Your task to perform on an android device: turn off sleep mode Image 0: 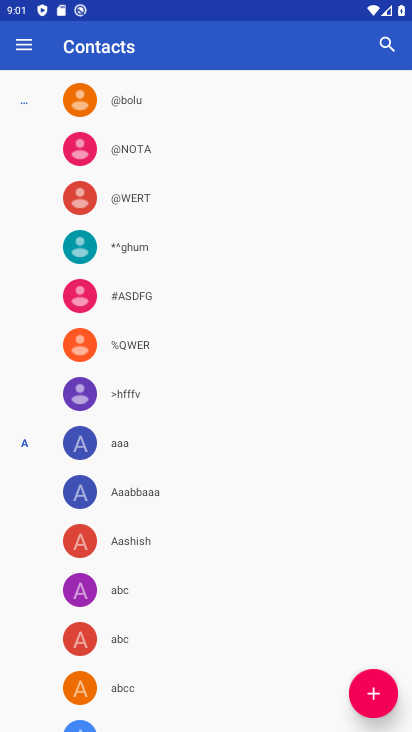
Step 0: press home button
Your task to perform on an android device: turn off sleep mode Image 1: 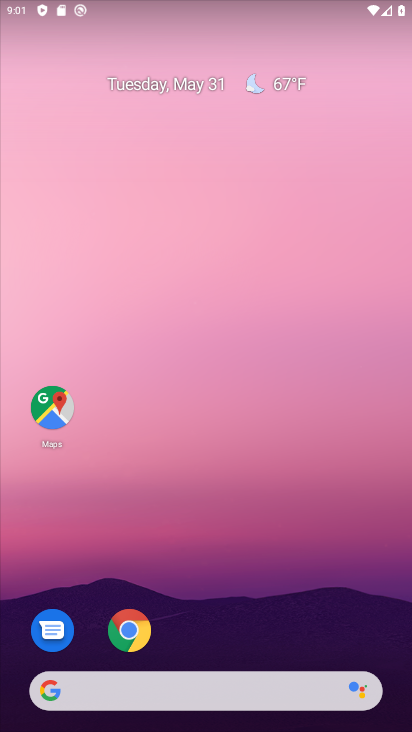
Step 1: drag from (238, 606) to (272, 19)
Your task to perform on an android device: turn off sleep mode Image 2: 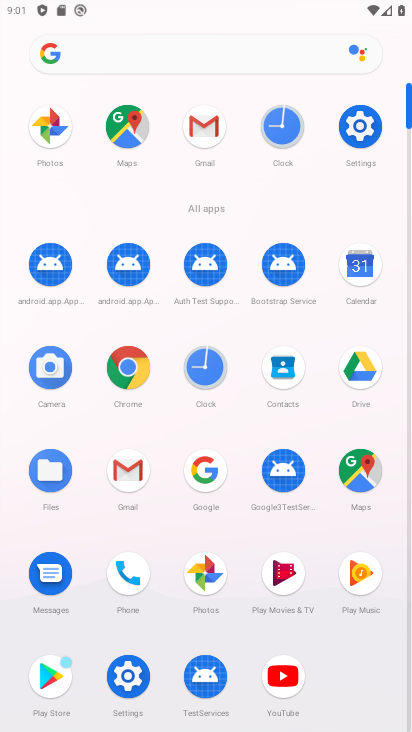
Step 2: click (365, 128)
Your task to perform on an android device: turn off sleep mode Image 3: 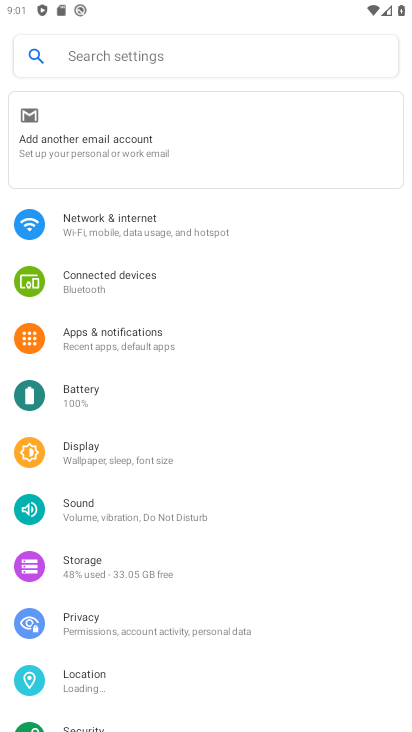
Step 3: drag from (150, 612) to (247, 36)
Your task to perform on an android device: turn off sleep mode Image 4: 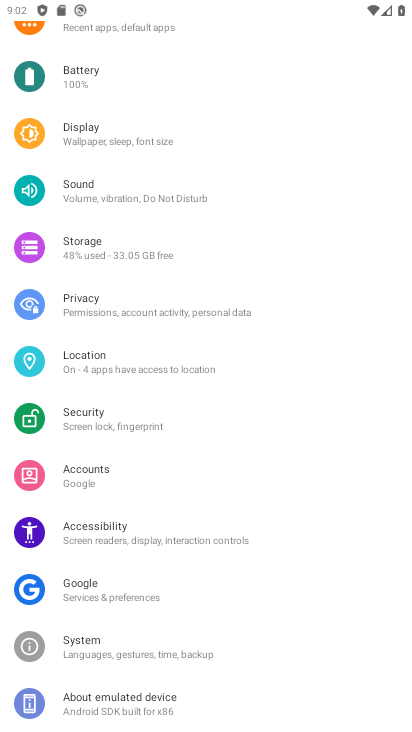
Step 4: click (144, 130)
Your task to perform on an android device: turn off sleep mode Image 5: 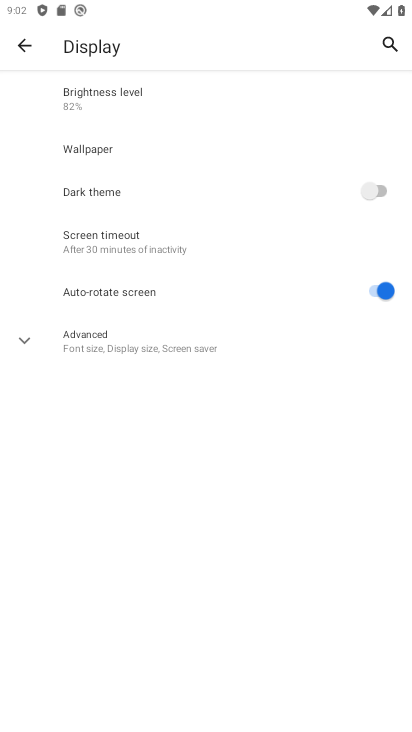
Step 5: click (188, 343)
Your task to perform on an android device: turn off sleep mode Image 6: 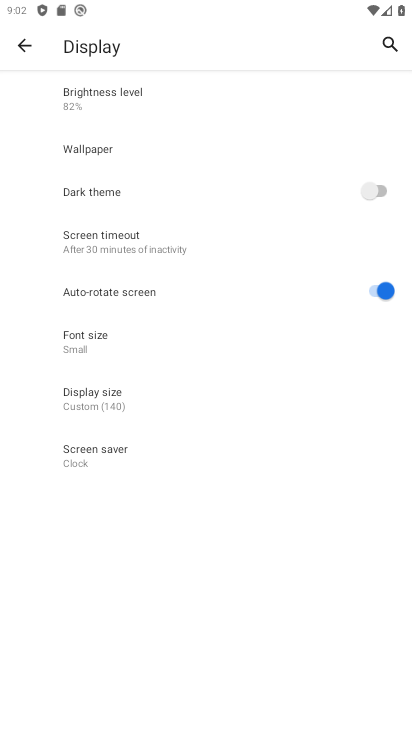
Step 6: task complete